Your task to perform on an android device: turn on the 12-hour format for clock Image 0: 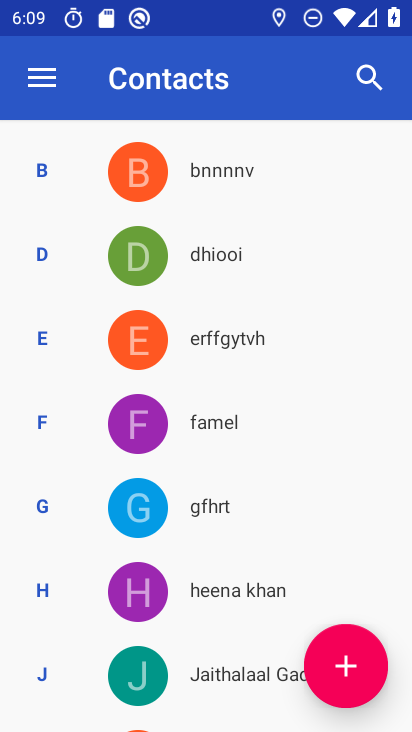
Step 0: press back button
Your task to perform on an android device: turn on the 12-hour format for clock Image 1: 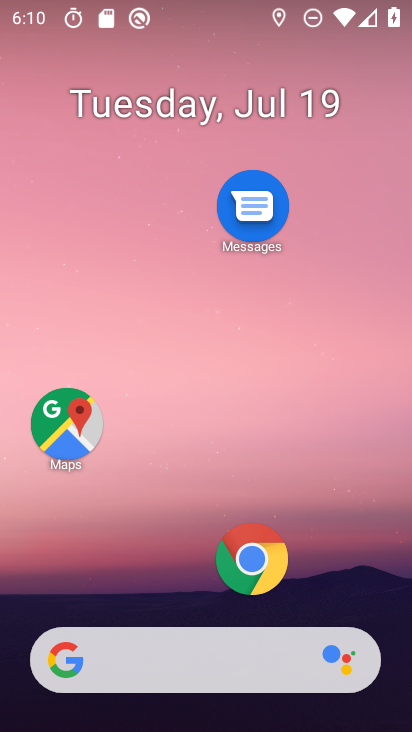
Step 1: drag from (162, 584) to (232, 24)
Your task to perform on an android device: turn on the 12-hour format for clock Image 2: 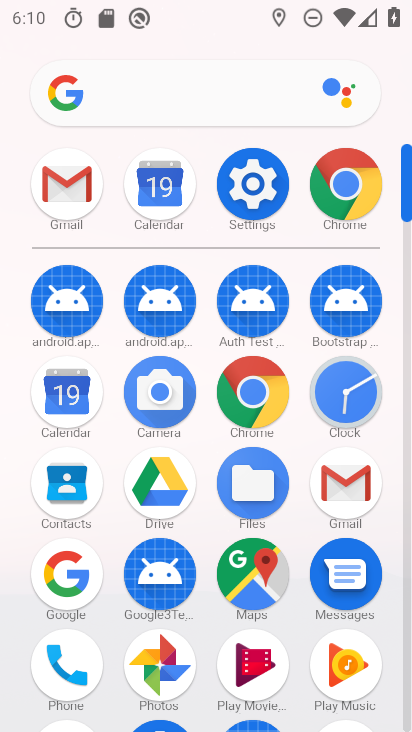
Step 2: click (324, 385)
Your task to perform on an android device: turn on the 12-hour format for clock Image 3: 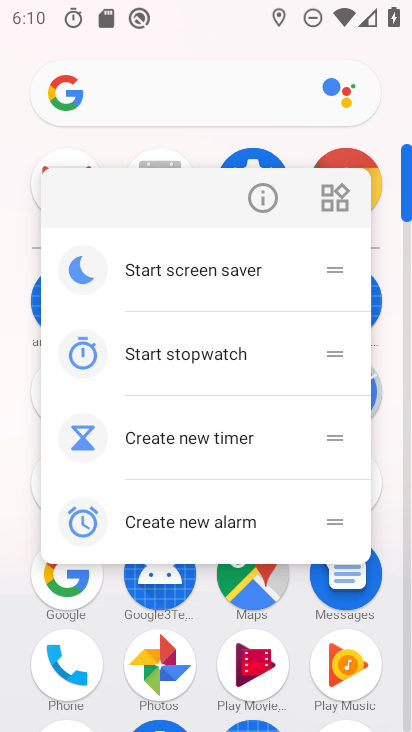
Step 3: click (213, 37)
Your task to perform on an android device: turn on the 12-hour format for clock Image 4: 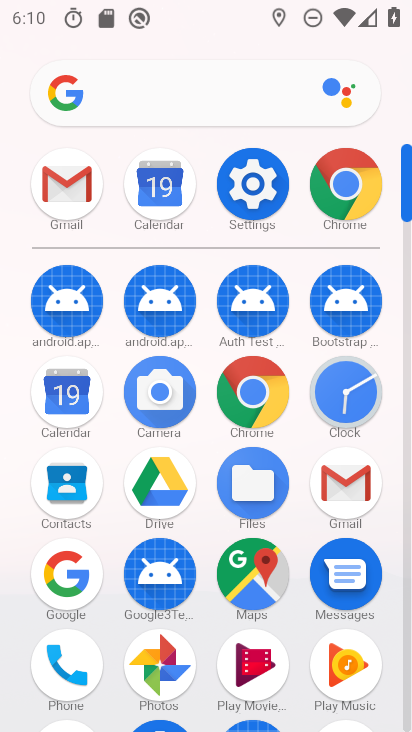
Step 4: click (359, 383)
Your task to perform on an android device: turn on the 12-hour format for clock Image 5: 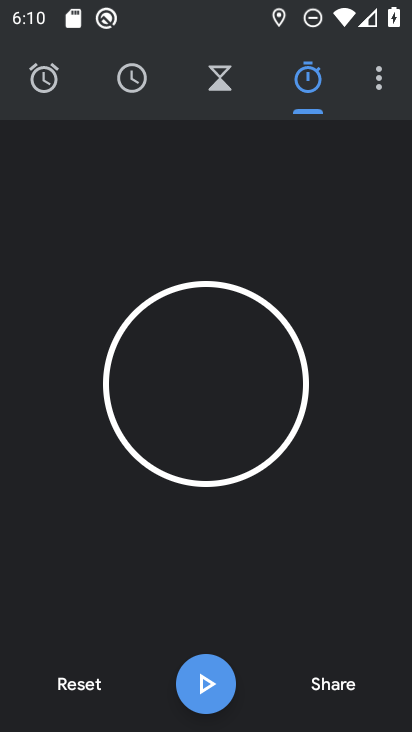
Step 5: drag from (373, 73) to (320, 228)
Your task to perform on an android device: turn on the 12-hour format for clock Image 6: 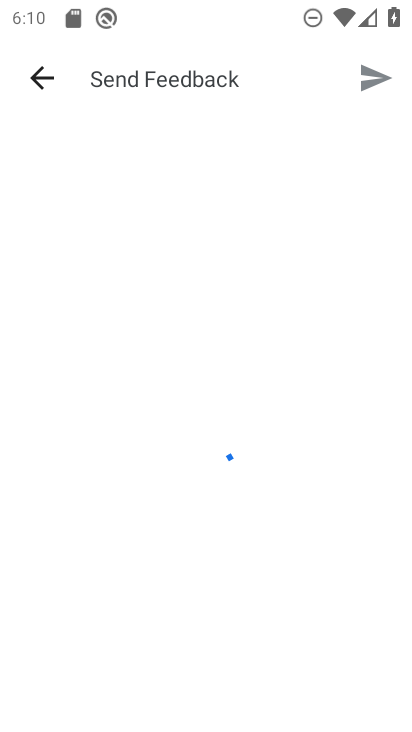
Step 6: press back button
Your task to perform on an android device: turn on the 12-hour format for clock Image 7: 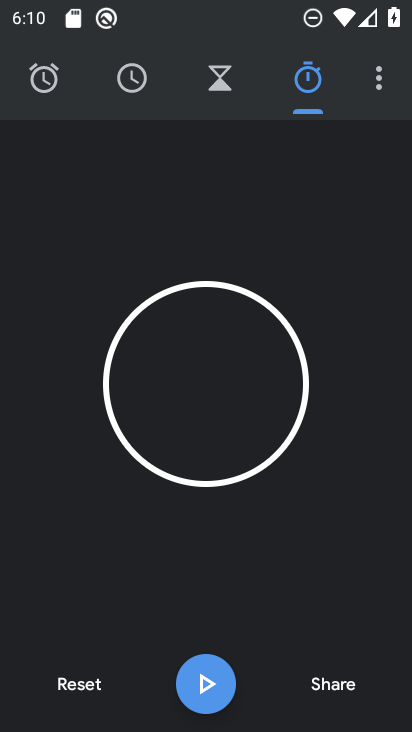
Step 7: click (371, 74)
Your task to perform on an android device: turn on the 12-hour format for clock Image 8: 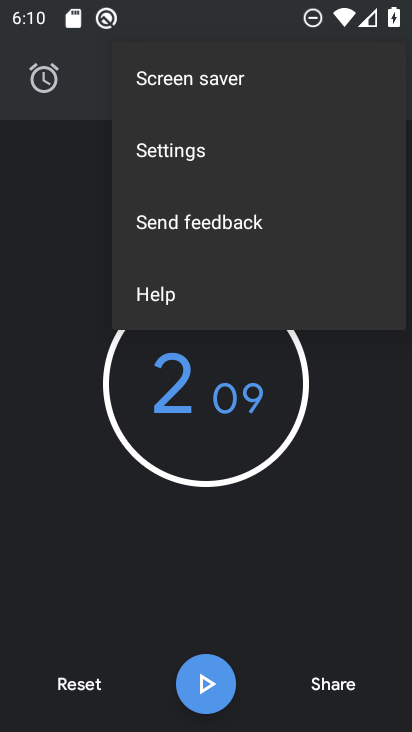
Step 8: click (180, 150)
Your task to perform on an android device: turn on the 12-hour format for clock Image 9: 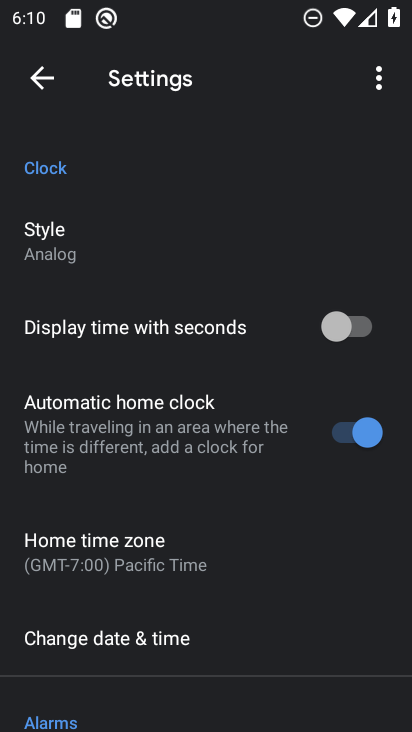
Step 9: click (142, 625)
Your task to perform on an android device: turn on the 12-hour format for clock Image 10: 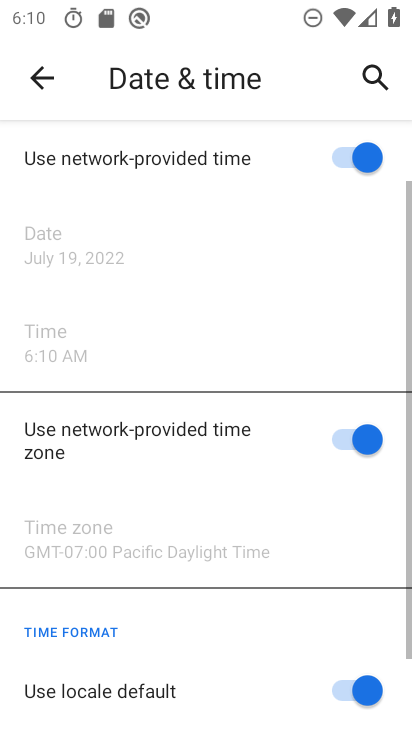
Step 10: task complete